Your task to perform on an android device: Open sound settings Image 0: 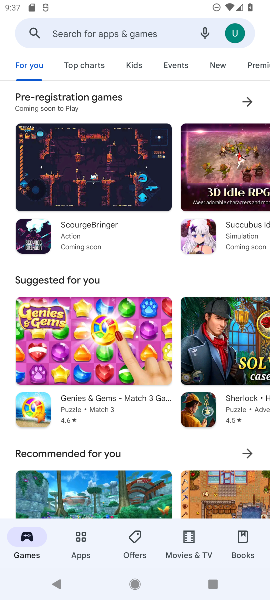
Step 0: drag from (159, 450) to (132, 254)
Your task to perform on an android device: Open sound settings Image 1: 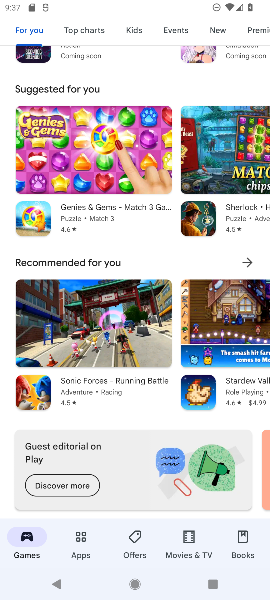
Step 1: drag from (163, 268) to (206, 556)
Your task to perform on an android device: Open sound settings Image 2: 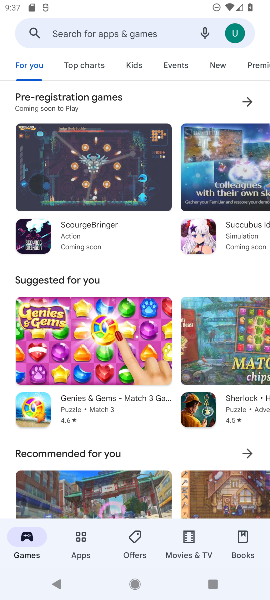
Step 2: drag from (127, 449) to (190, 335)
Your task to perform on an android device: Open sound settings Image 3: 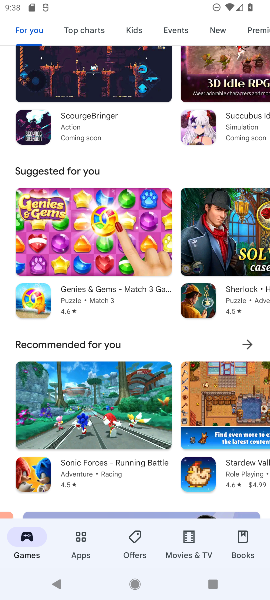
Step 3: press home button
Your task to perform on an android device: Open sound settings Image 4: 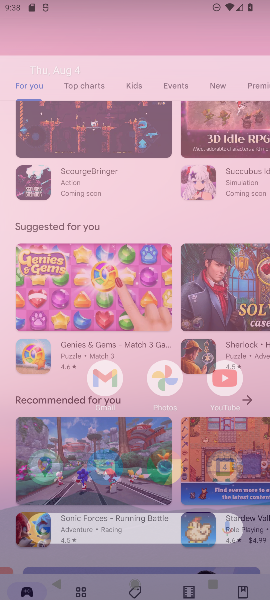
Step 4: drag from (118, 476) to (160, 222)
Your task to perform on an android device: Open sound settings Image 5: 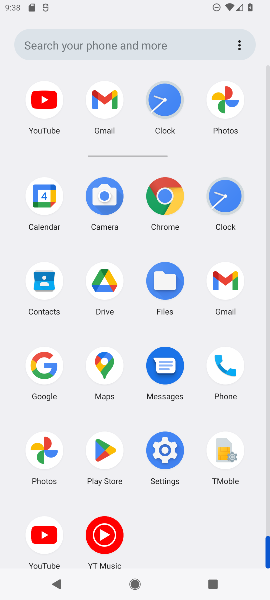
Step 5: click (159, 449)
Your task to perform on an android device: Open sound settings Image 6: 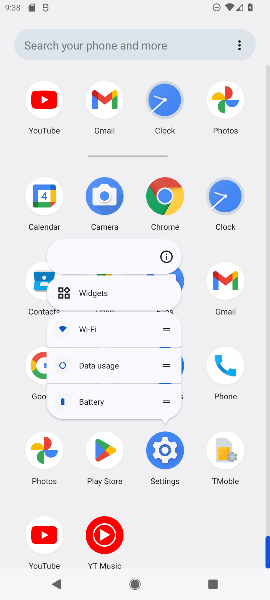
Step 6: click (170, 259)
Your task to perform on an android device: Open sound settings Image 7: 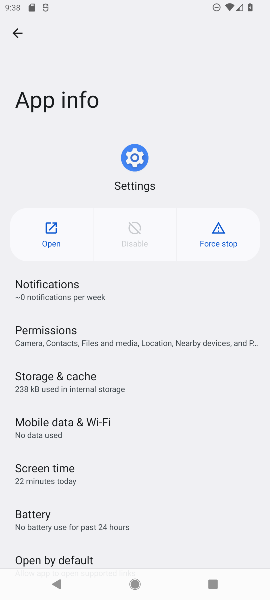
Step 7: click (40, 243)
Your task to perform on an android device: Open sound settings Image 8: 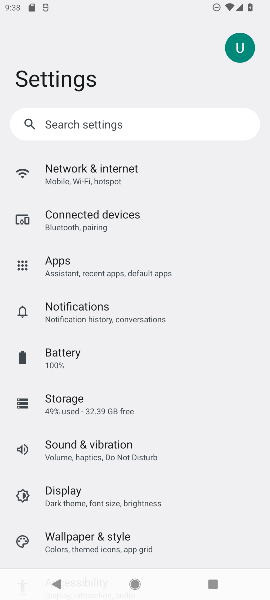
Step 8: drag from (73, 341) to (73, 266)
Your task to perform on an android device: Open sound settings Image 9: 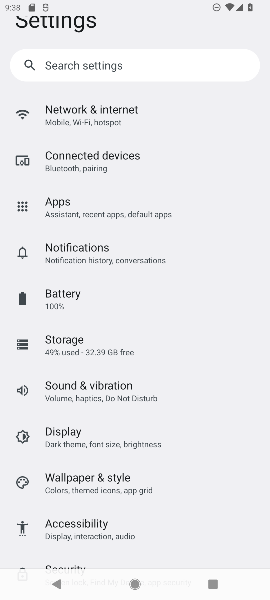
Step 9: click (83, 396)
Your task to perform on an android device: Open sound settings Image 10: 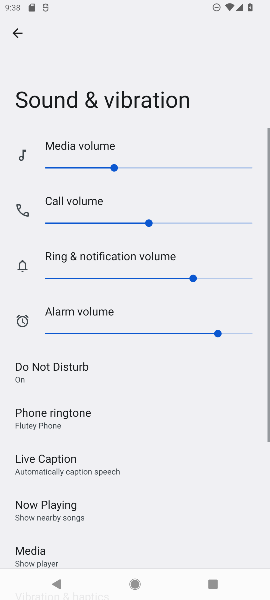
Step 10: task complete